Your task to perform on an android device: Toggle the flashlight Image 0: 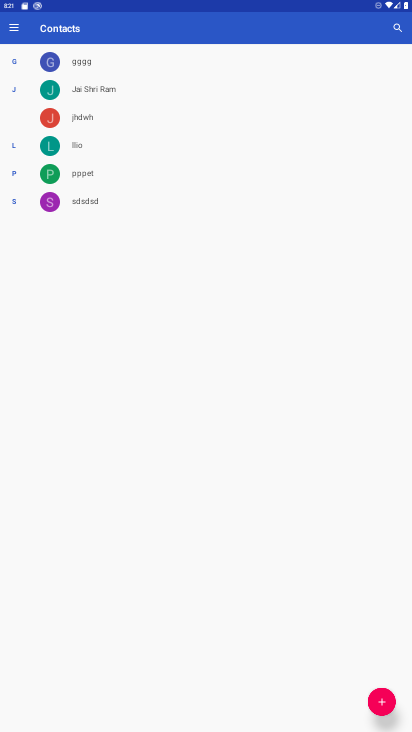
Step 0: drag from (161, 7) to (136, 448)
Your task to perform on an android device: Toggle the flashlight Image 1: 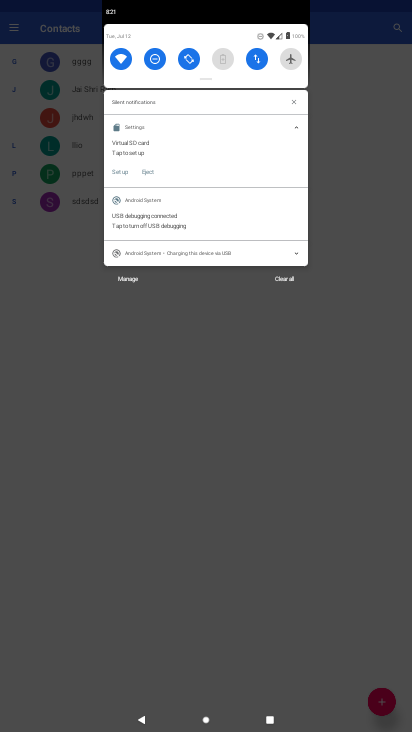
Step 1: task complete